Your task to perform on an android device: What's the weather today? Image 0: 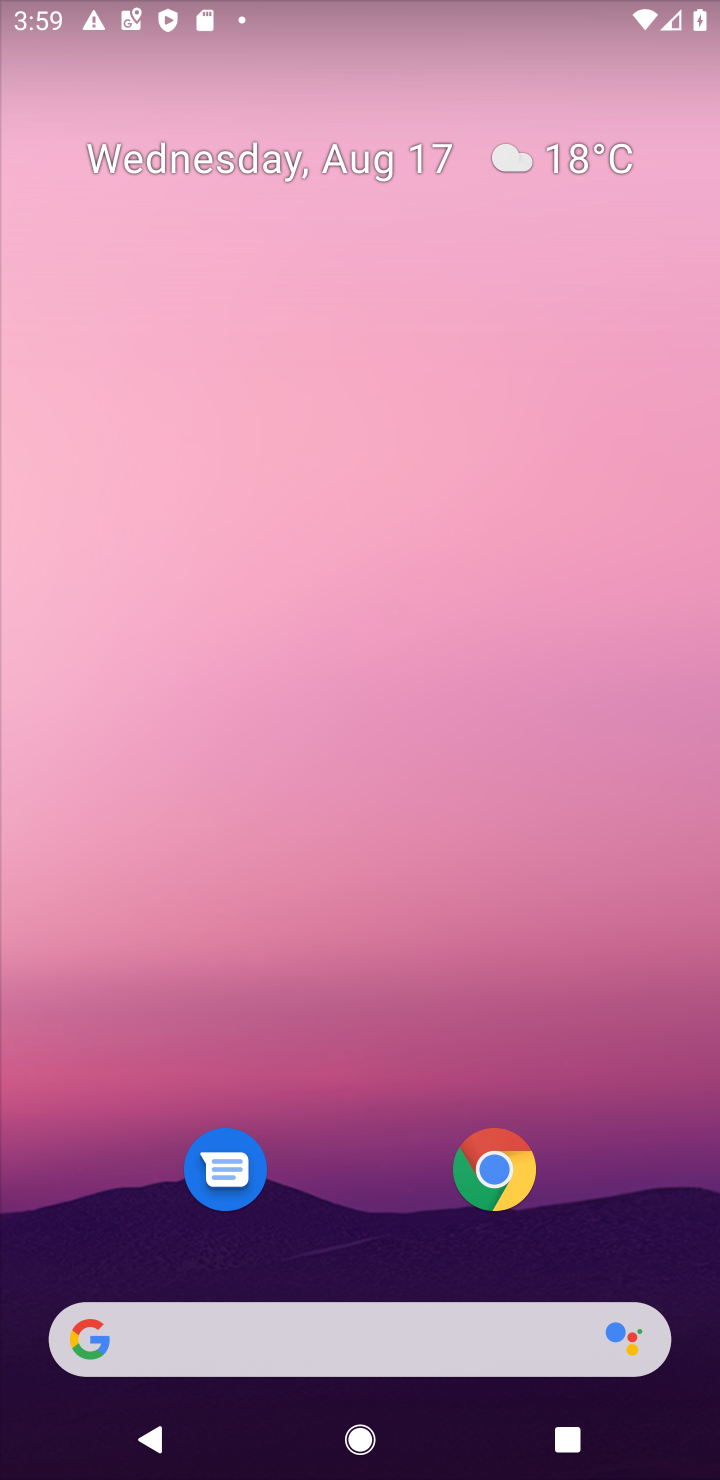
Step 0: drag from (373, 1165) to (509, 272)
Your task to perform on an android device: What's the weather today? Image 1: 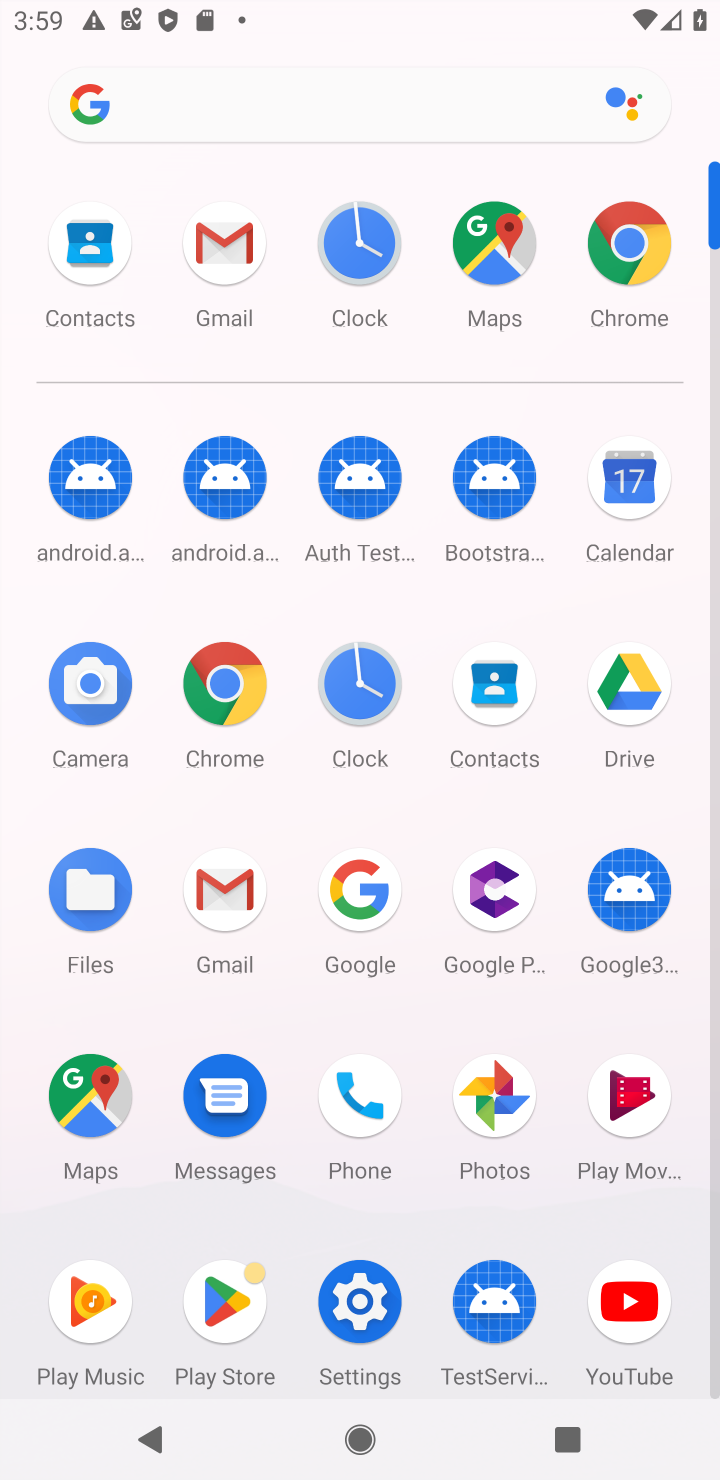
Step 1: click (212, 663)
Your task to perform on an android device: What's the weather today? Image 2: 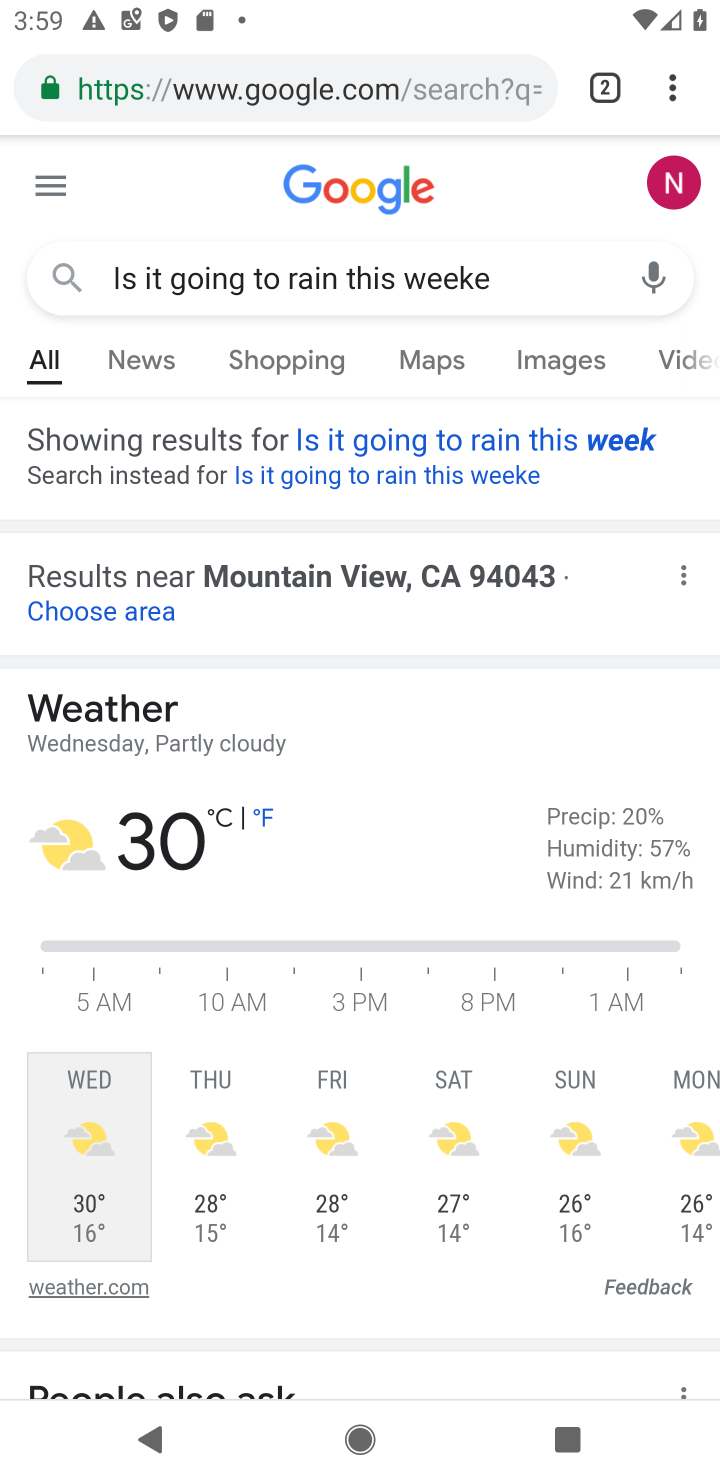
Step 2: click (293, 73)
Your task to perform on an android device: What's the weather today? Image 3: 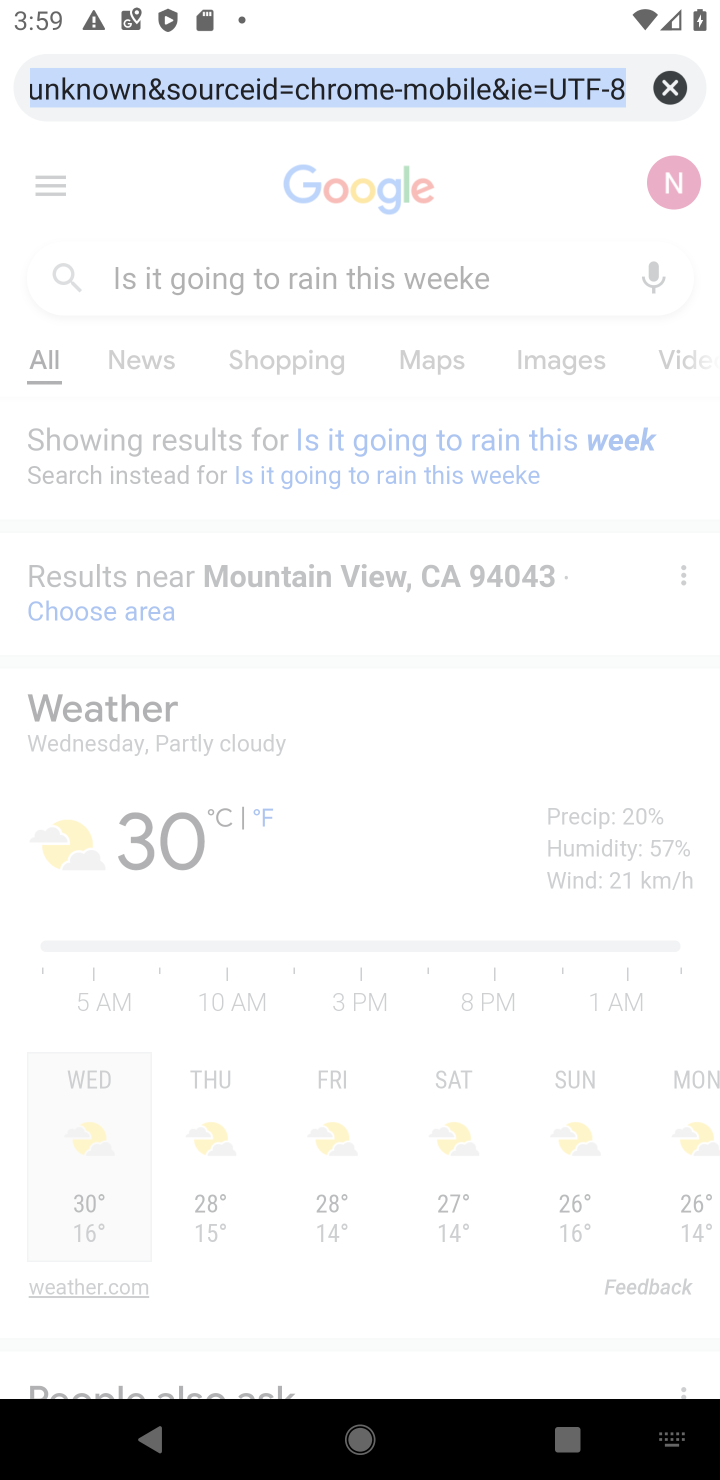
Step 3: type "What's the weather today?"
Your task to perform on an android device: What's the weather today? Image 4: 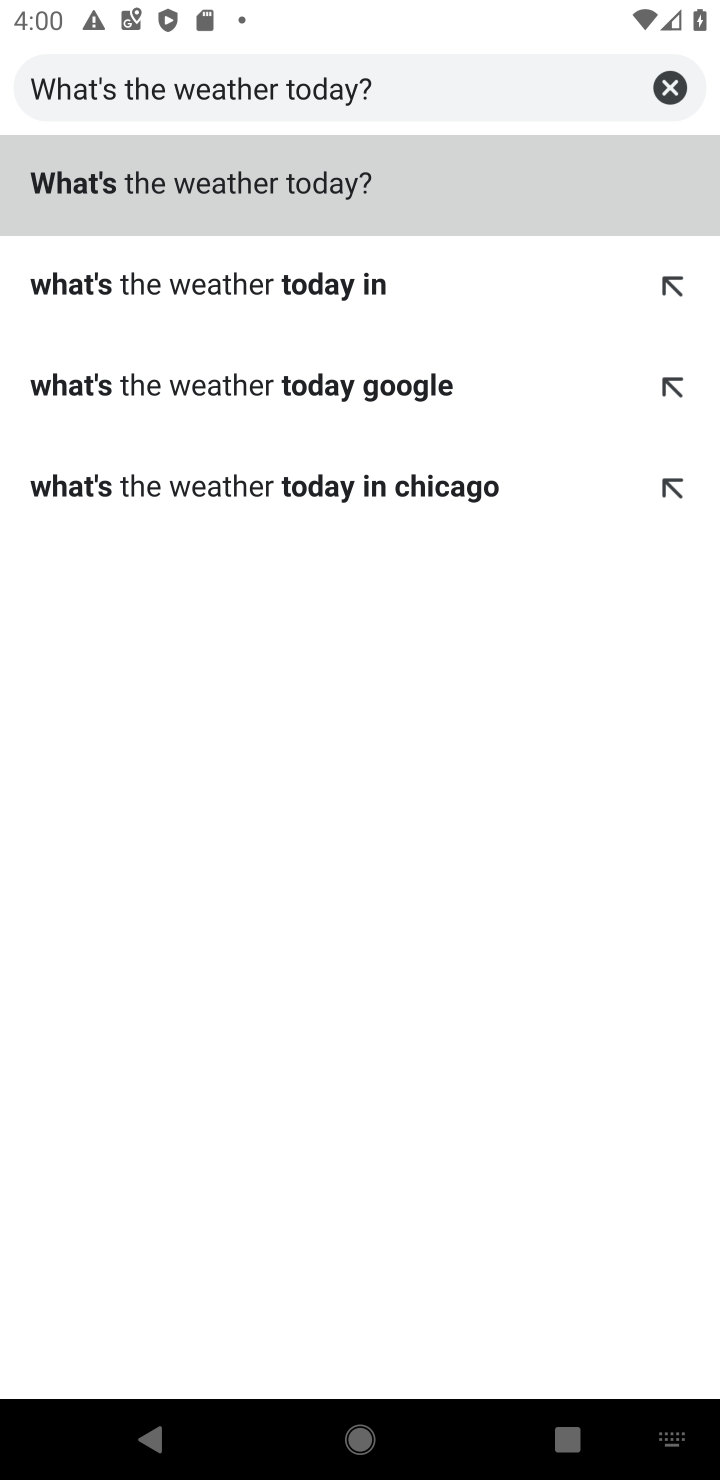
Step 4: click (309, 189)
Your task to perform on an android device: What's the weather today? Image 5: 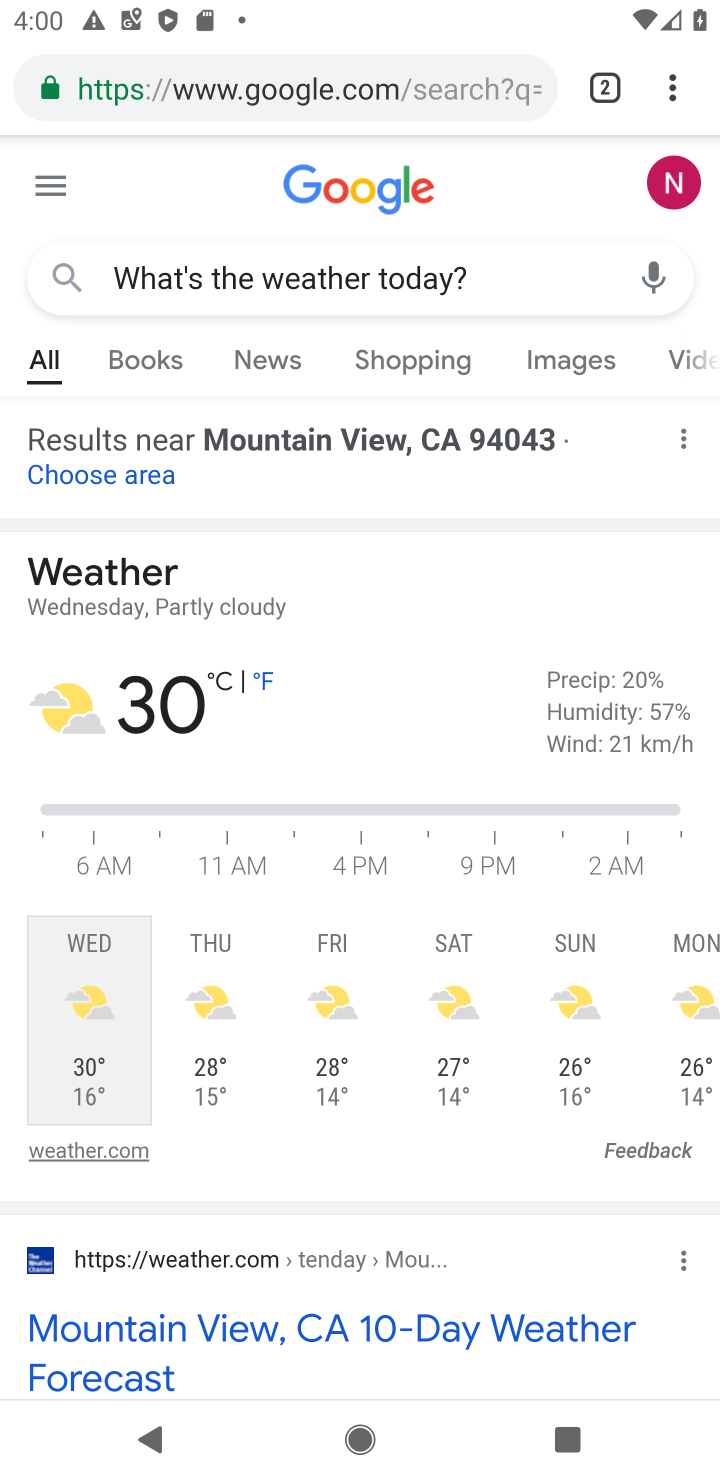
Step 5: task complete